Your task to perform on an android device: Go to notification settings Image 0: 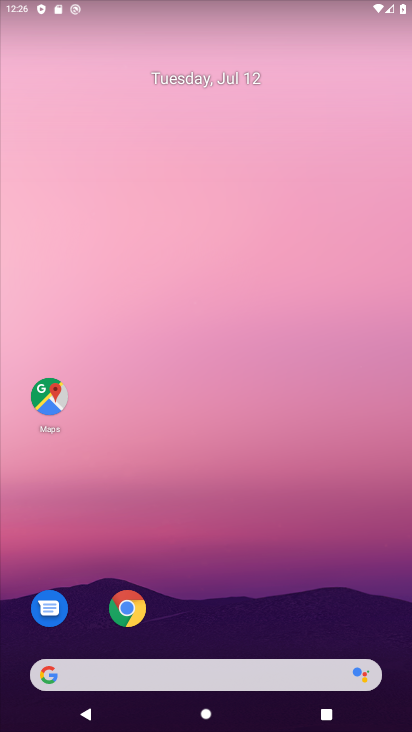
Step 0: drag from (283, 584) to (226, 199)
Your task to perform on an android device: Go to notification settings Image 1: 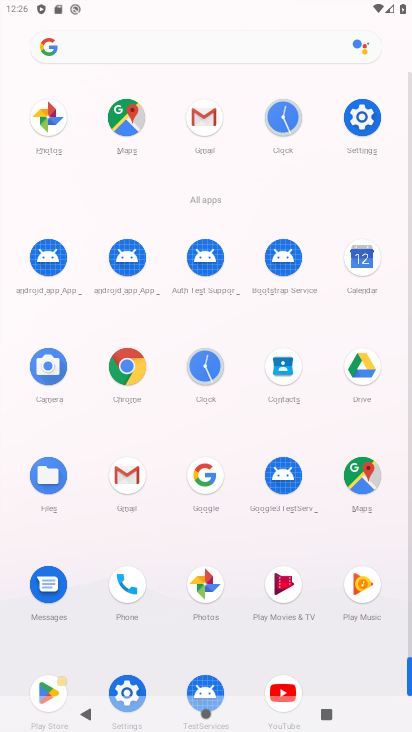
Step 1: click (355, 124)
Your task to perform on an android device: Go to notification settings Image 2: 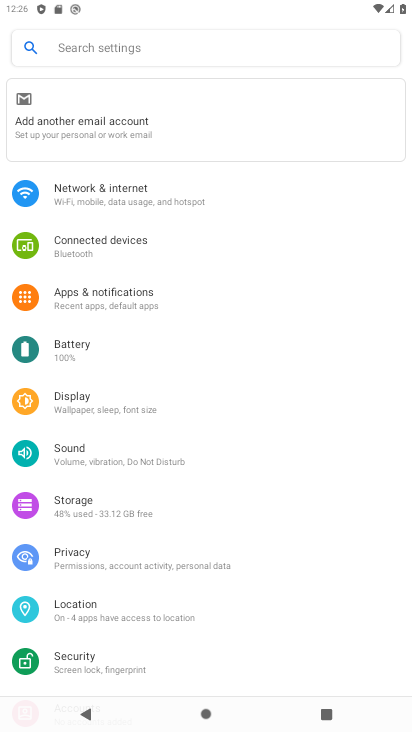
Step 2: click (129, 292)
Your task to perform on an android device: Go to notification settings Image 3: 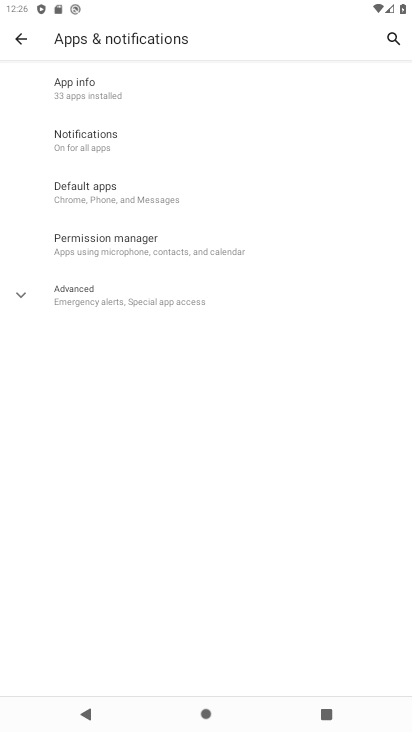
Step 3: click (105, 144)
Your task to perform on an android device: Go to notification settings Image 4: 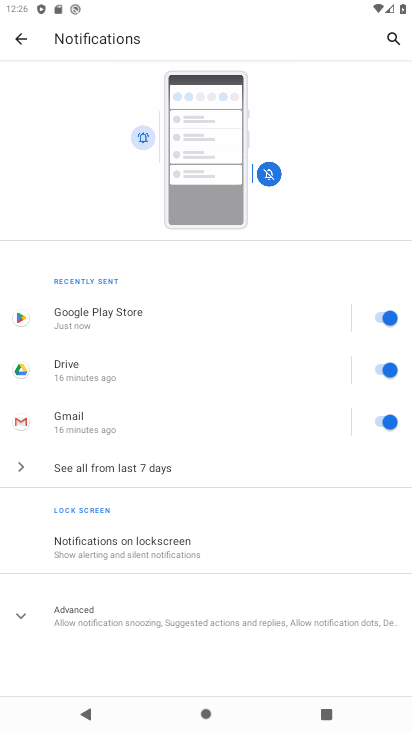
Step 4: task complete